Your task to perform on an android device: Go to settings Image 0: 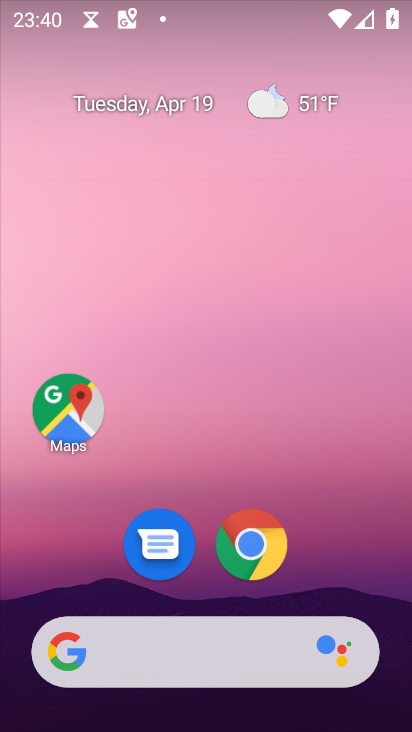
Step 0: drag from (344, 591) to (325, 208)
Your task to perform on an android device: Go to settings Image 1: 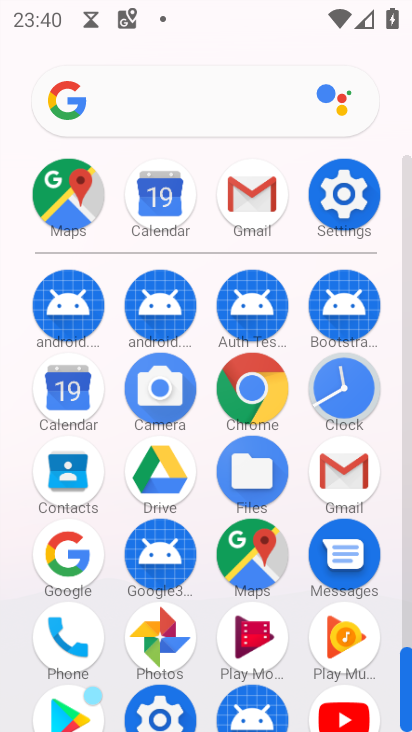
Step 1: click (333, 207)
Your task to perform on an android device: Go to settings Image 2: 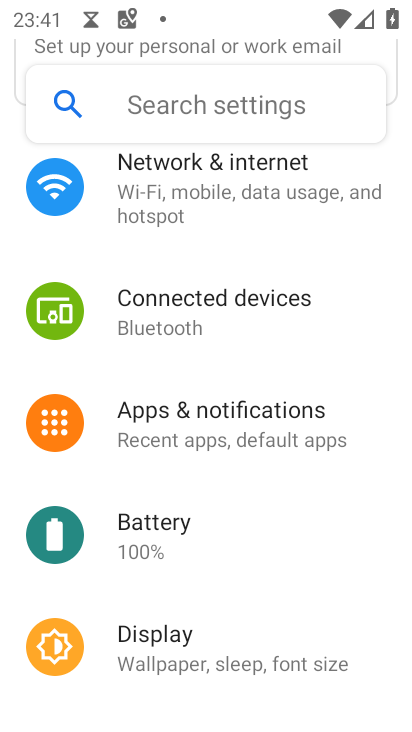
Step 2: task complete